Your task to perform on an android device: Show the shopping cart on bestbuy.com. Add "macbook pro" to the cart on bestbuy.com, then select checkout. Image 0: 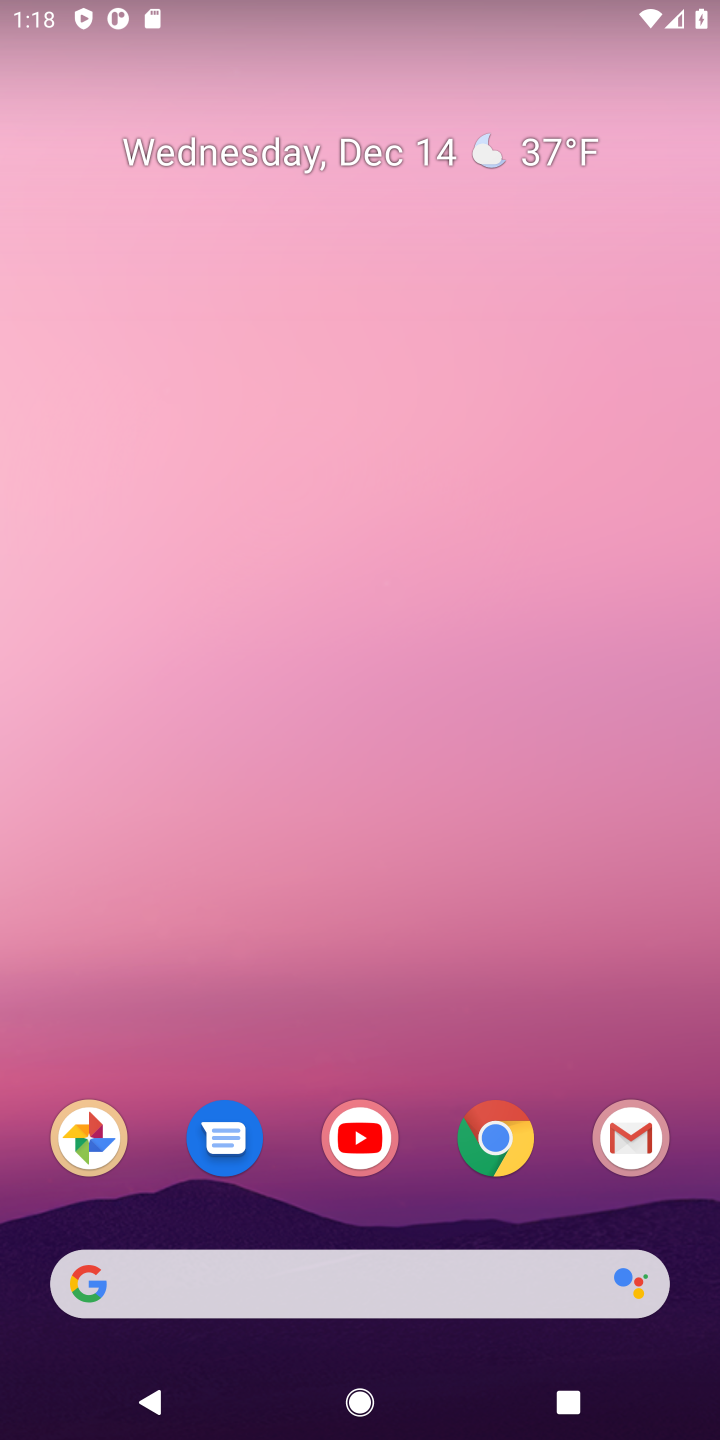
Step 0: click (497, 1140)
Your task to perform on an android device: Show the shopping cart on bestbuy.com. Add "macbook pro" to the cart on bestbuy.com, then select checkout. Image 1: 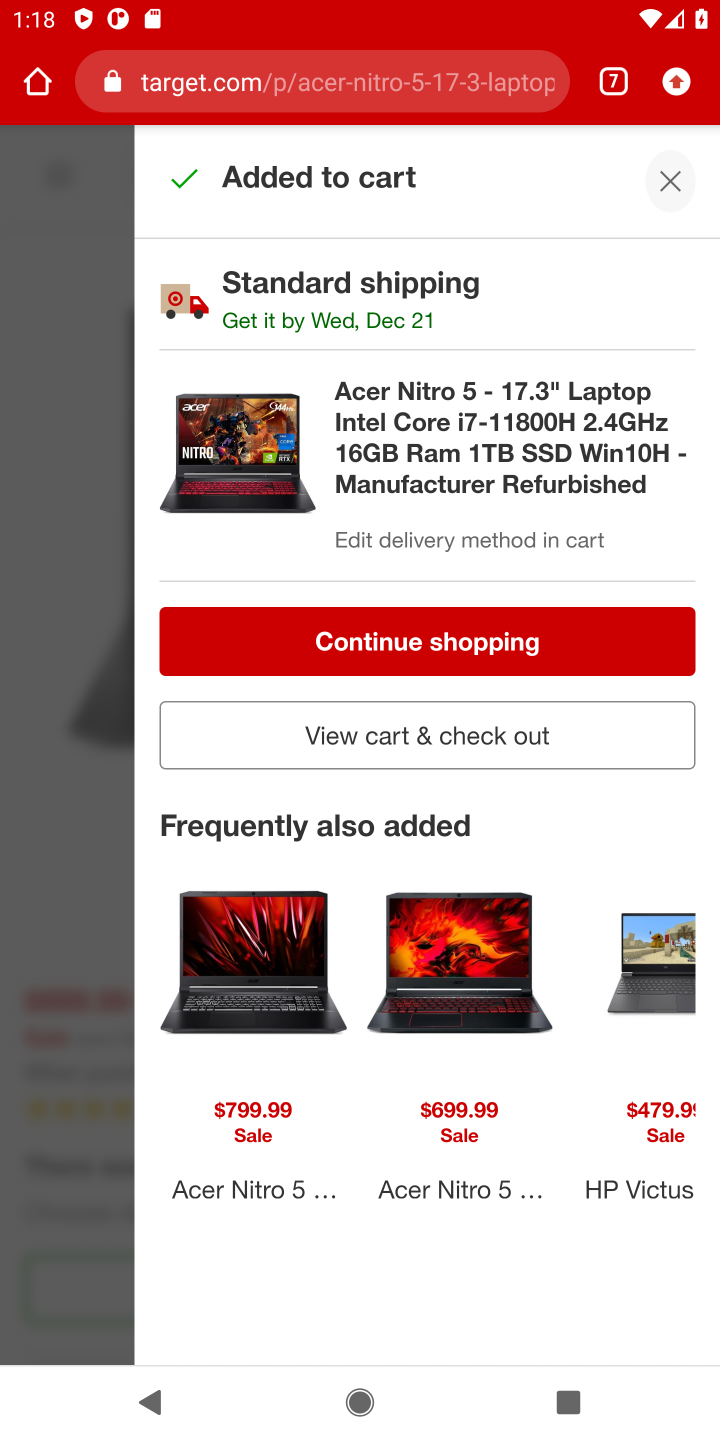
Step 1: click (611, 82)
Your task to perform on an android device: Show the shopping cart on bestbuy.com. Add "macbook pro" to the cart on bestbuy.com, then select checkout. Image 2: 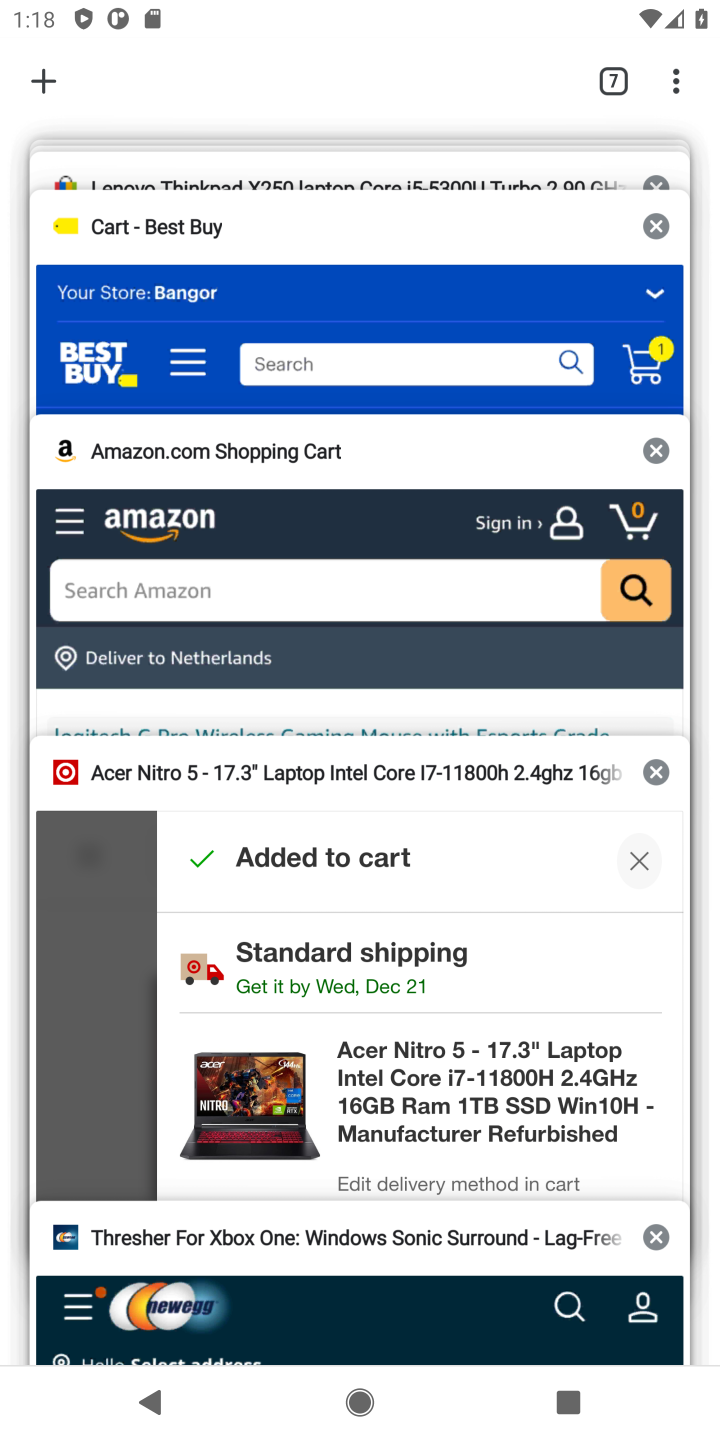
Step 2: drag from (512, 145) to (497, 370)
Your task to perform on an android device: Show the shopping cart on bestbuy.com. Add "macbook pro" to the cart on bestbuy.com, then select checkout. Image 3: 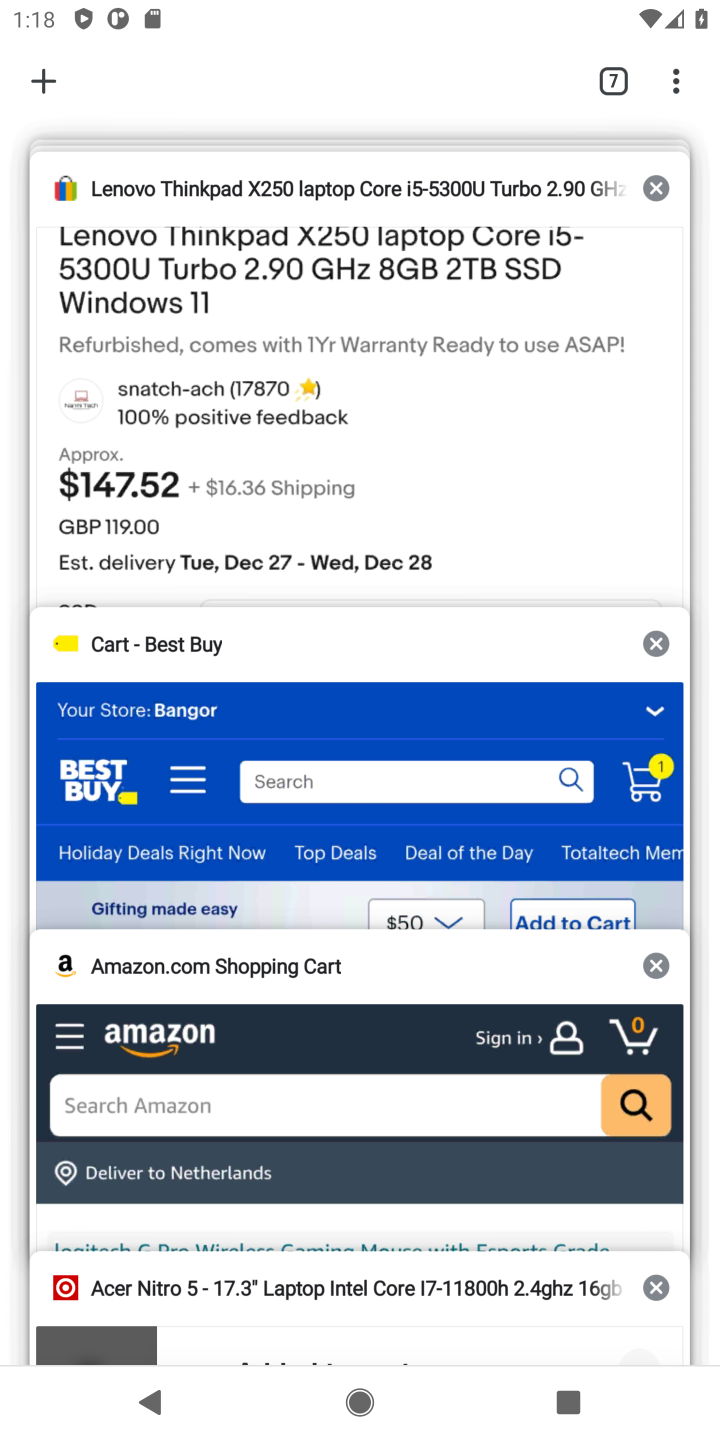
Step 3: click (469, 721)
Your task to perform on an android device: Show the shopping cart on bestbuy.com. Add "macbook pro" to the cart on bestbuy.com, then select checkout. Image 4: 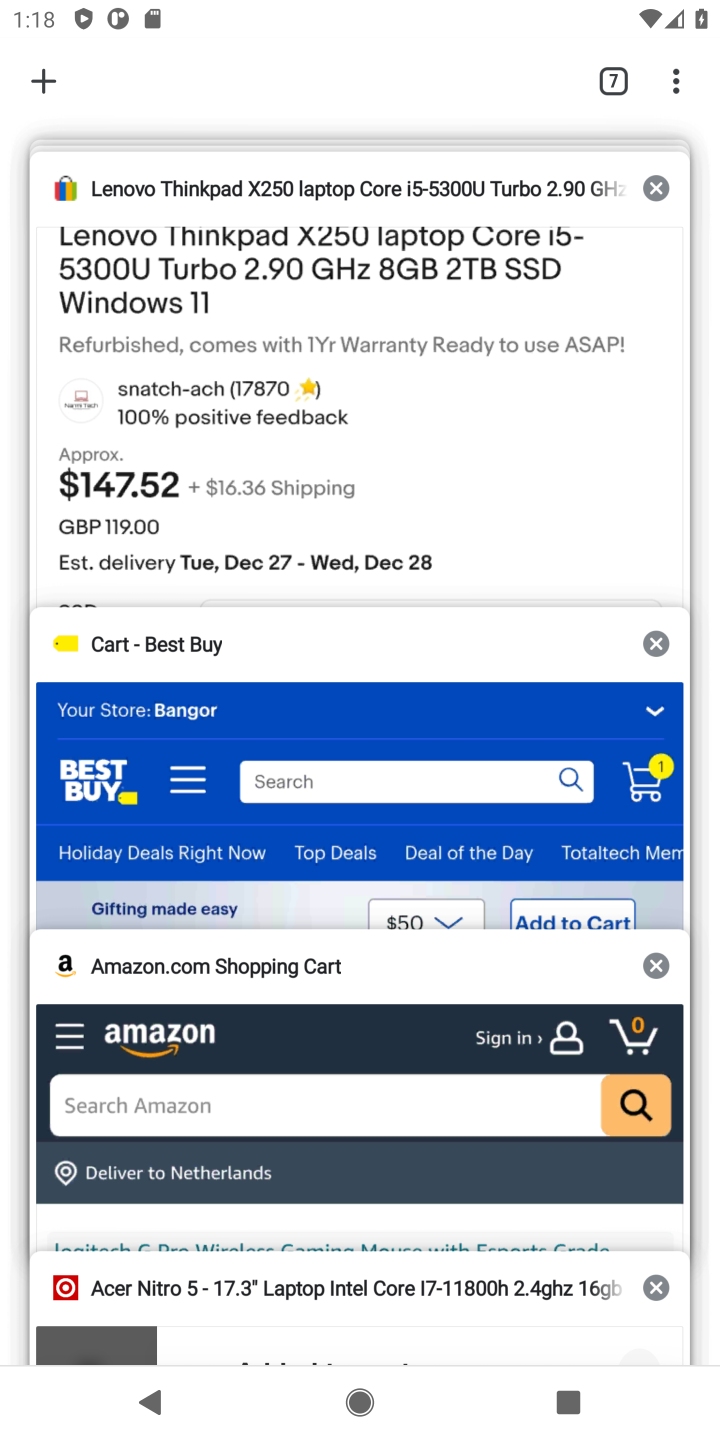
Step 4: click (469, 721)
Your task to perform on an android device: Show the shopping cart on bestbuy.com. Add "macbook pro" to the cart on bestbuy.com, then select checkout. Image 5: 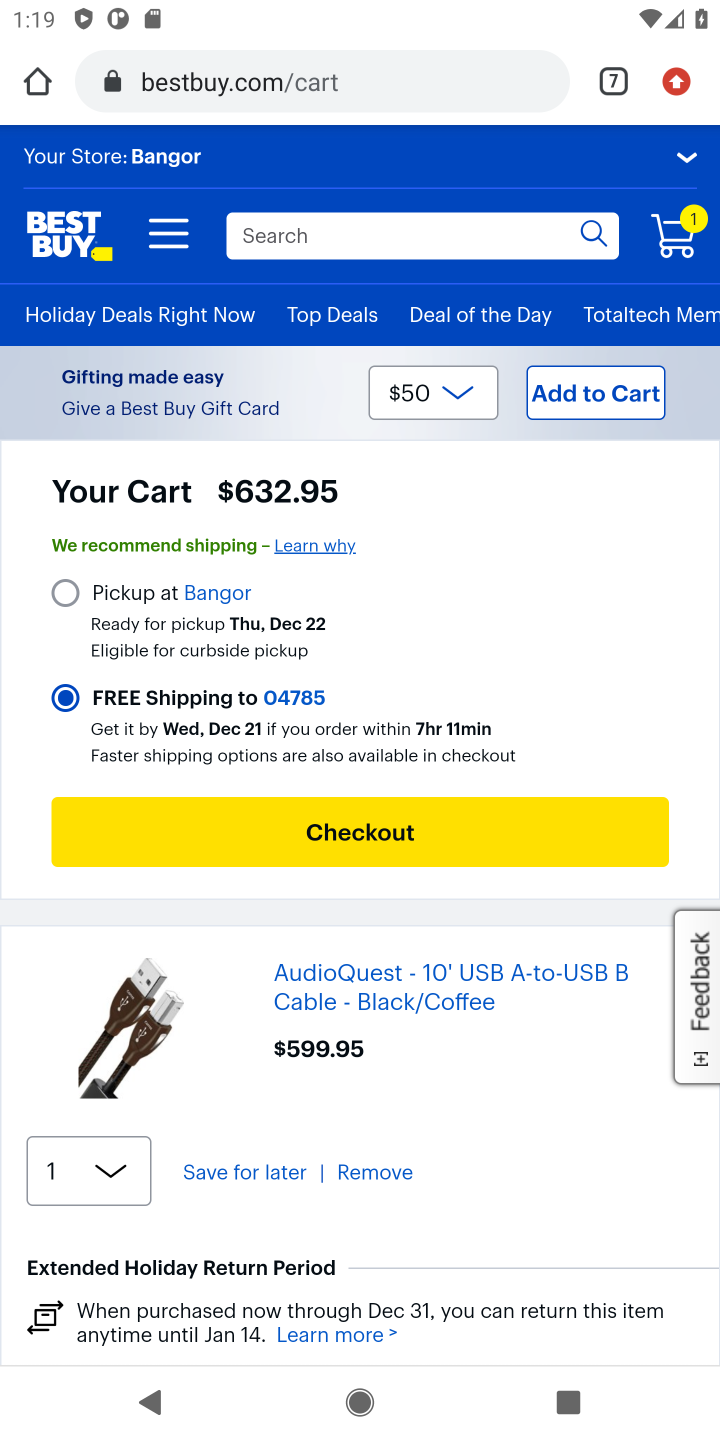
Step 5: click (358, 241)
Your task to perform on an android device: Show the shopping cart on bestbuy.com. Add "macbook pro" to the cart on bestbuy.com, then select checkout. Image 6: 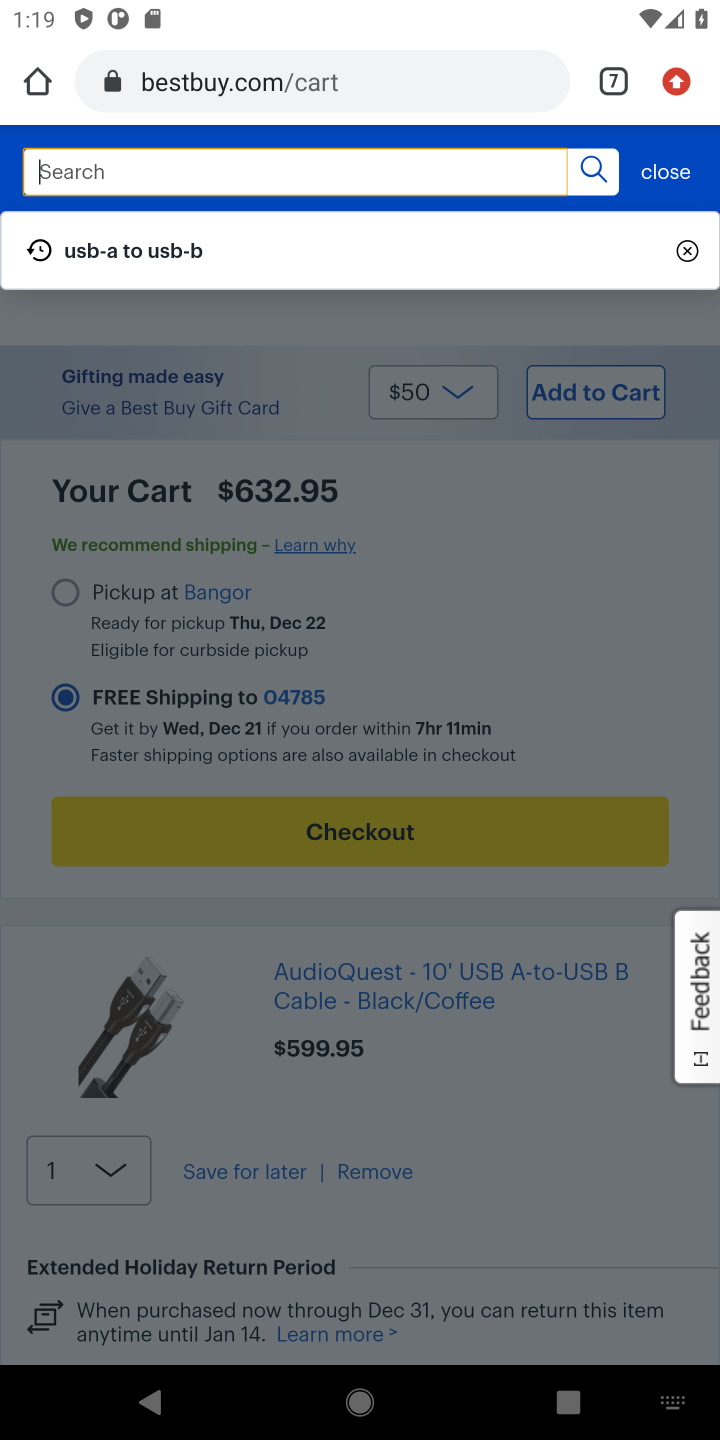
Step 6: type "macbook pro"
Your task to perform on an android device: Show the shopping cart on bestbuy.com. Add "macbook pro" to the cart on bestbuy.com, then select checkout. Image 7: 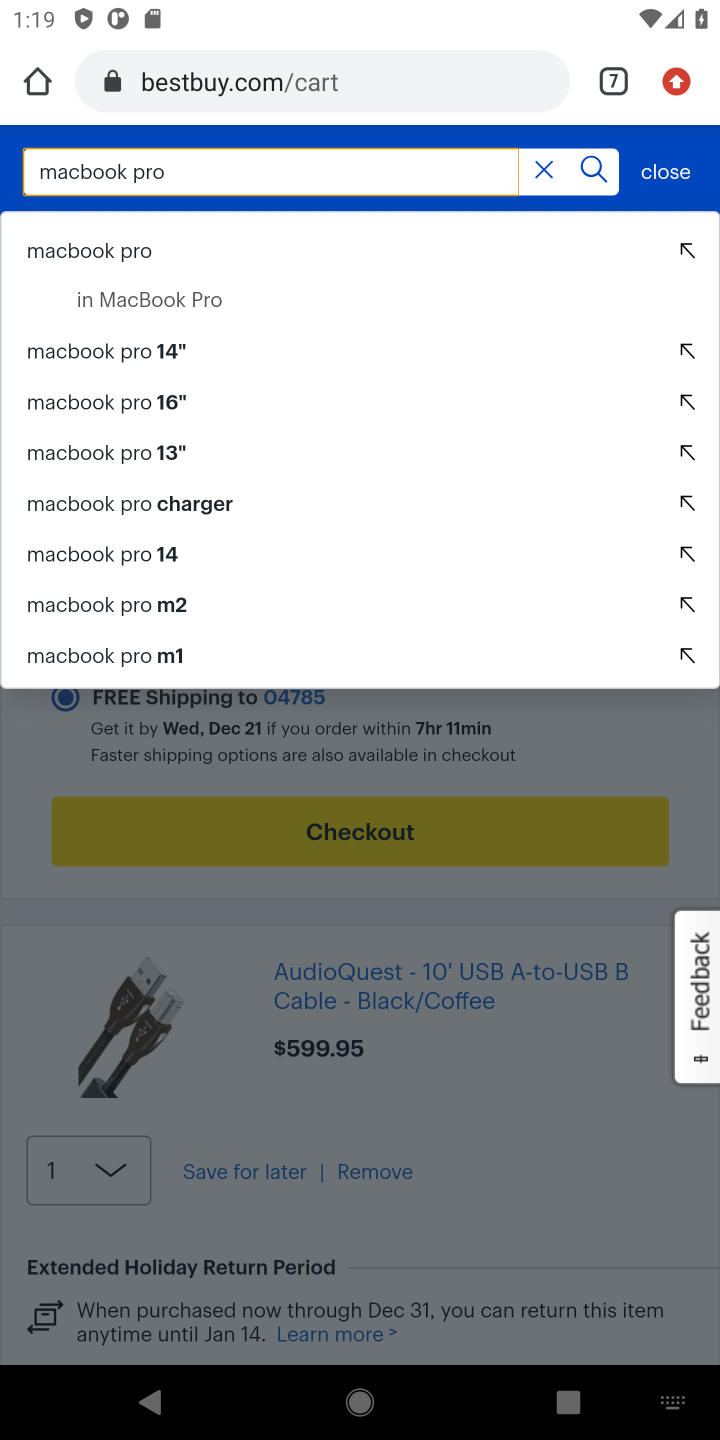
Step 7: click (86, 244)
Your task to perform on an android device: Show the shopping cart on bestbuy.com. Add "macbook pro" to the cart on bestbuy.com, then select checkout. Image 8: 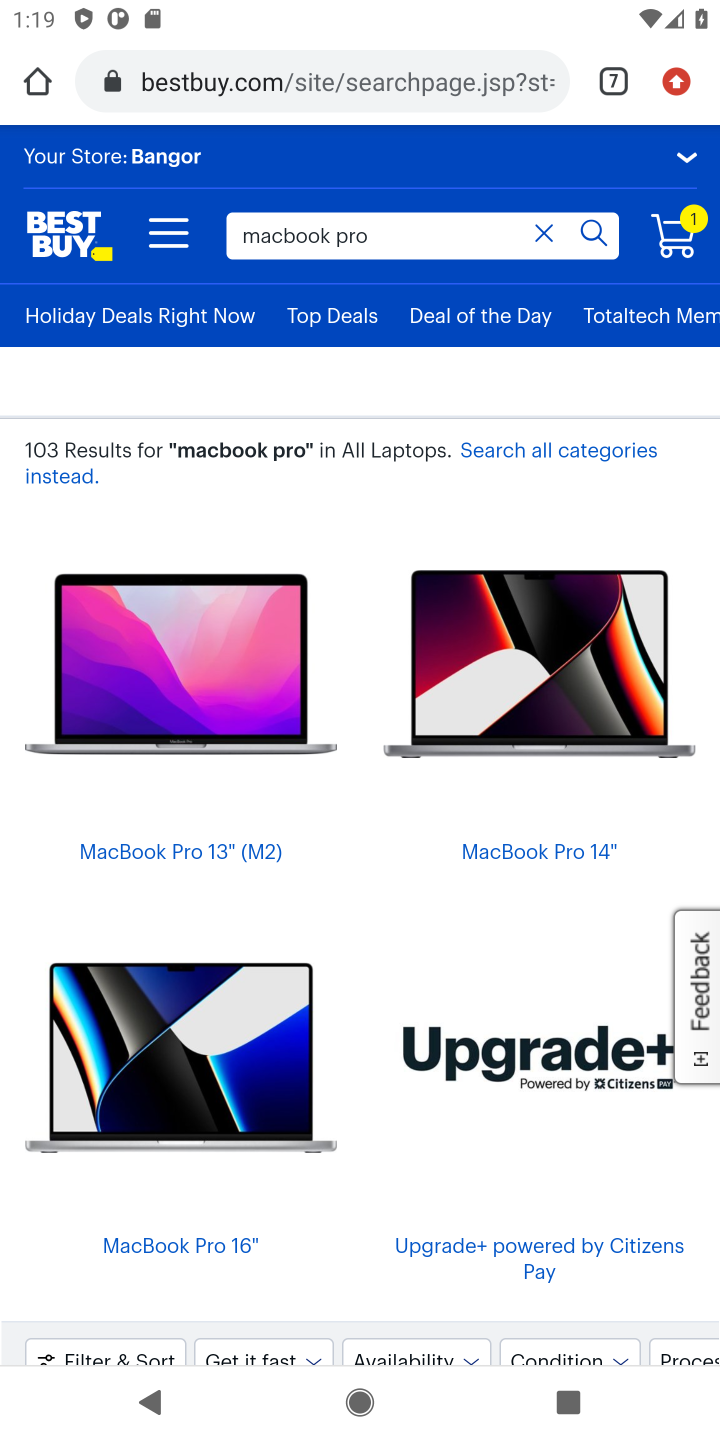
Step 8: click (101, 842)
Your task to perform on an android device: Show the shopping cart on bestbuy.com. Add "macbook pro" to the cart on bestbuy.com, then select checkout. Image 9: 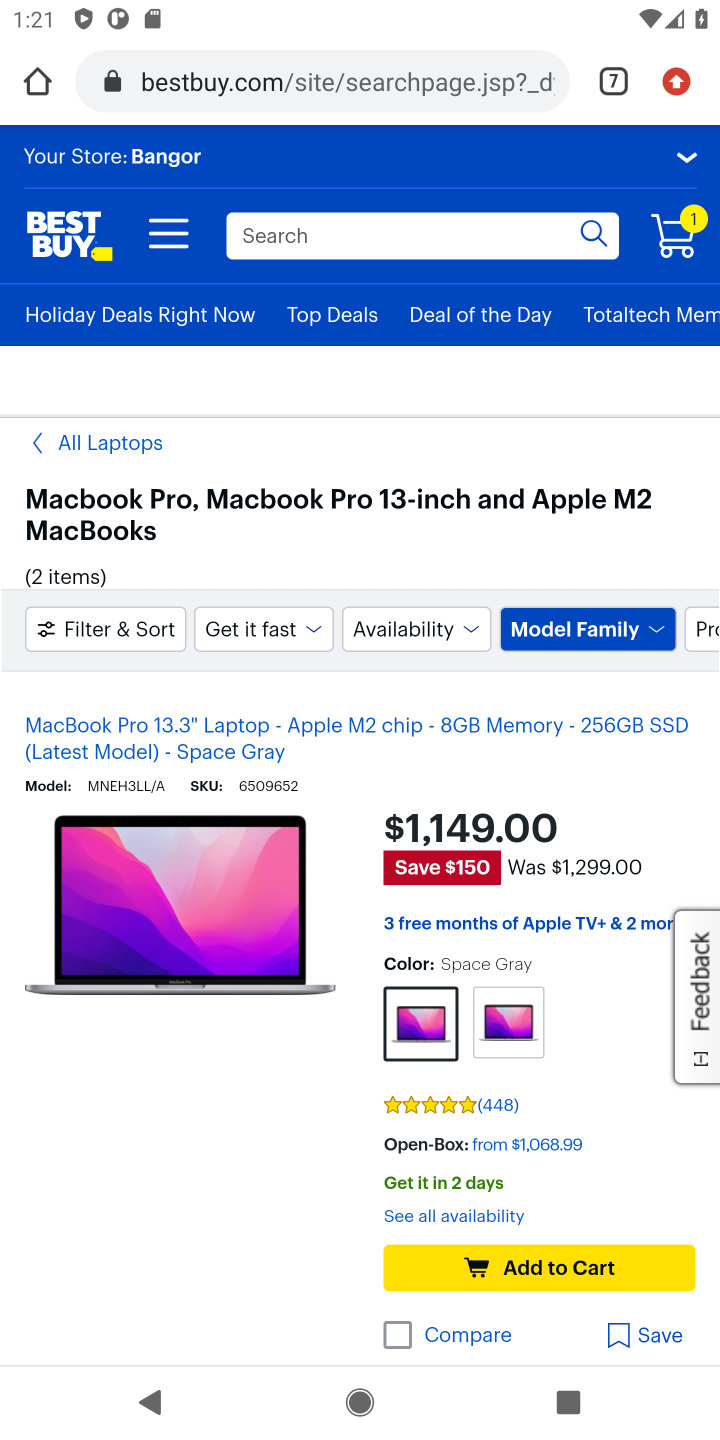
Step 9: click (527, 1261)
Your task to perform on an android device: Show the shopping cart on bestbuy.com. Add "macbook pro" to the cart on bestbuy.com, then select checkout. Image 10: 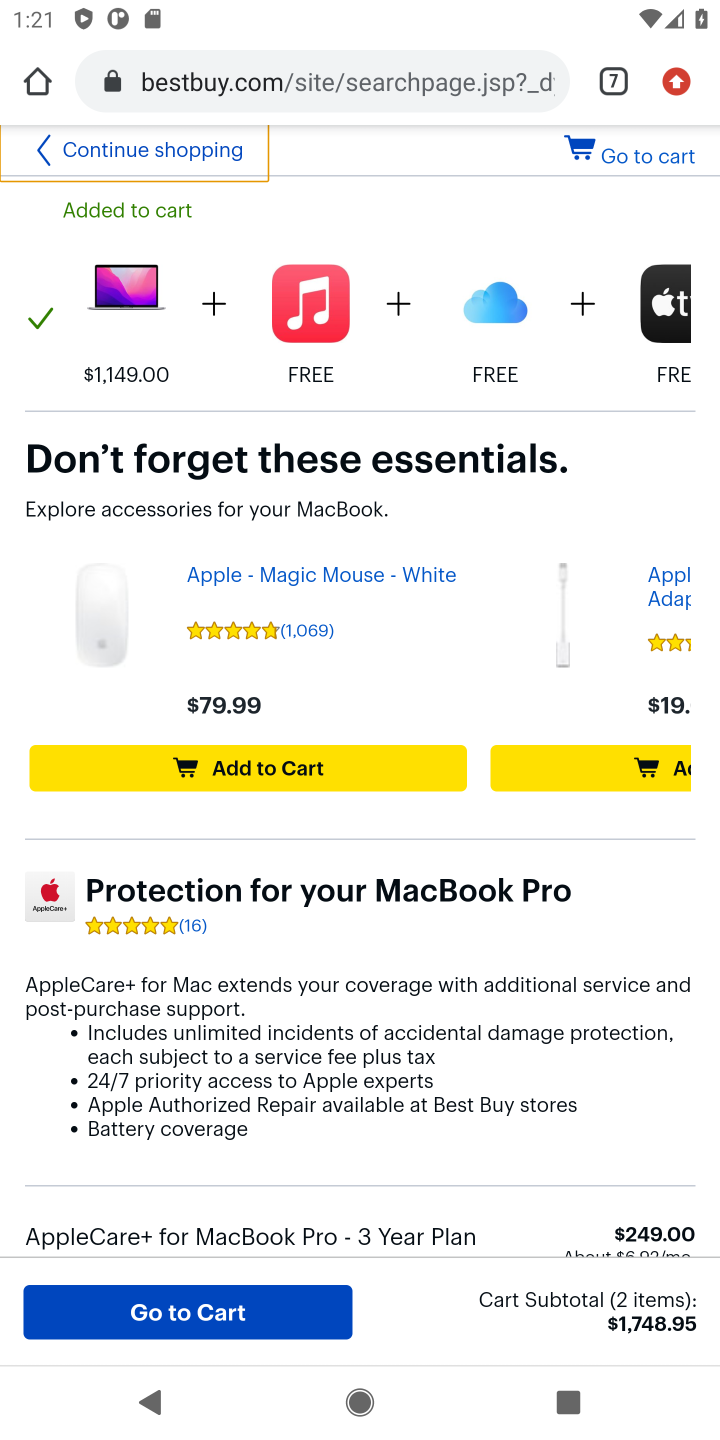
Step 10: task complete